Your task to perform on an android device: Go to Google Image 0: 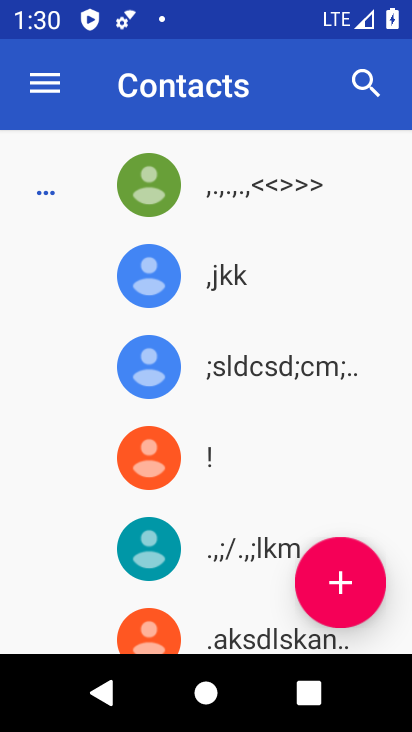
Step 0: press home button
Your task to perform on an android device: Go to Google Image 1: 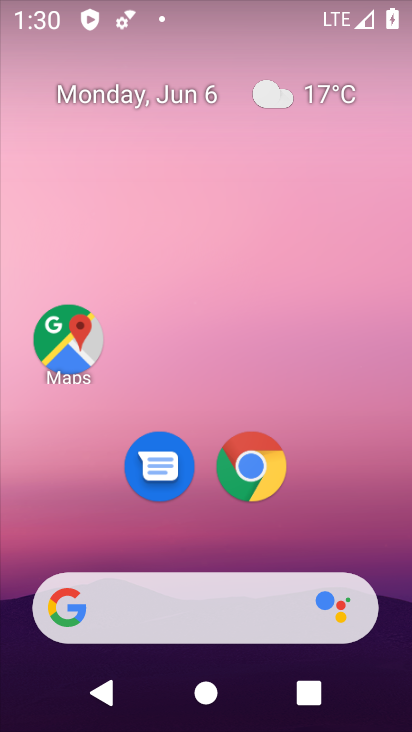
Step 1: drag from (351, 508) to (369, 171)
Your task to perform on an android device: Go to Google Image 2: 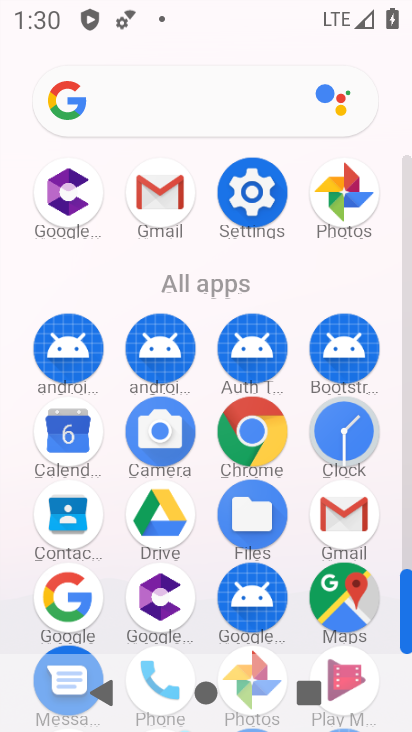
Step 2: click (66, 584)
Your task to perform on an android device: Go to Google Image 3: 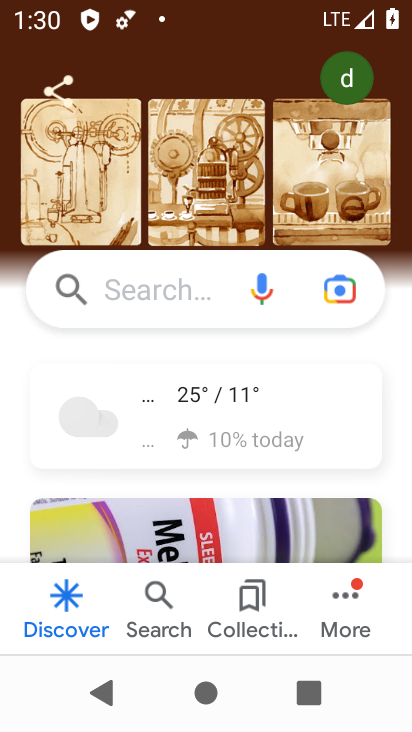
Step 3: task complete